Your task to perform on an android device: Empty the shopping cart on newegg.com. Image 0: 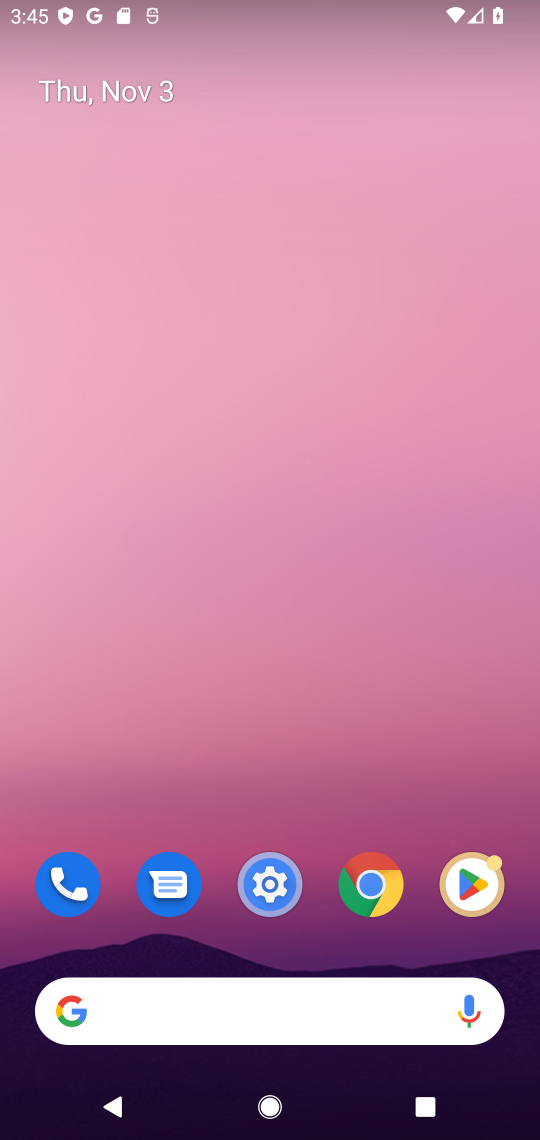
Step 0: press home button
Your task to perform on an android device: Empty the shopping cart on newegg.com. Image 1: 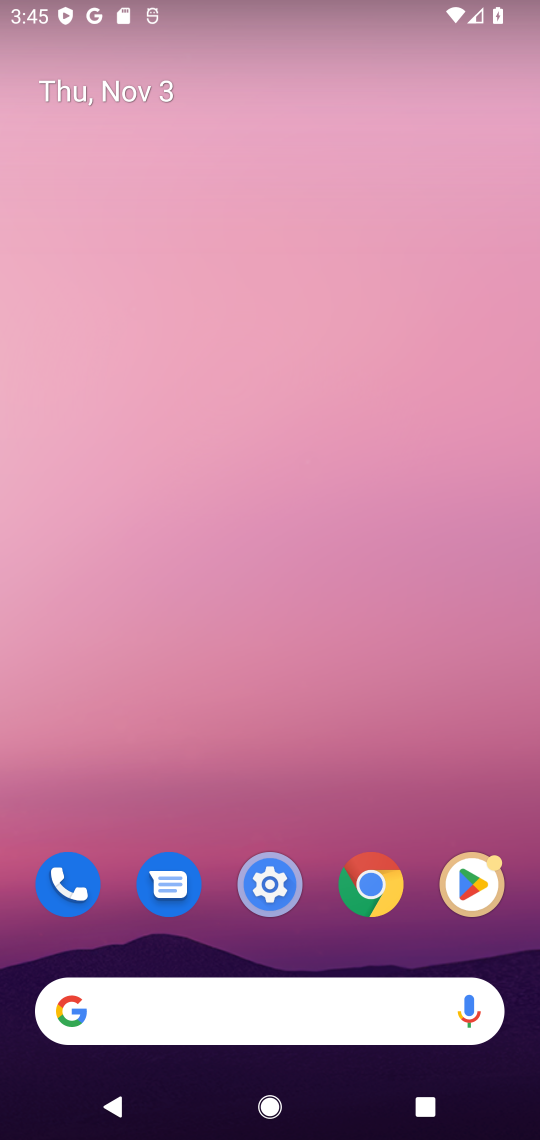
Step 1: click (96, 1006)
Your task to perform on an android device: Empty the shopping cart on newegg.com. Image 2: 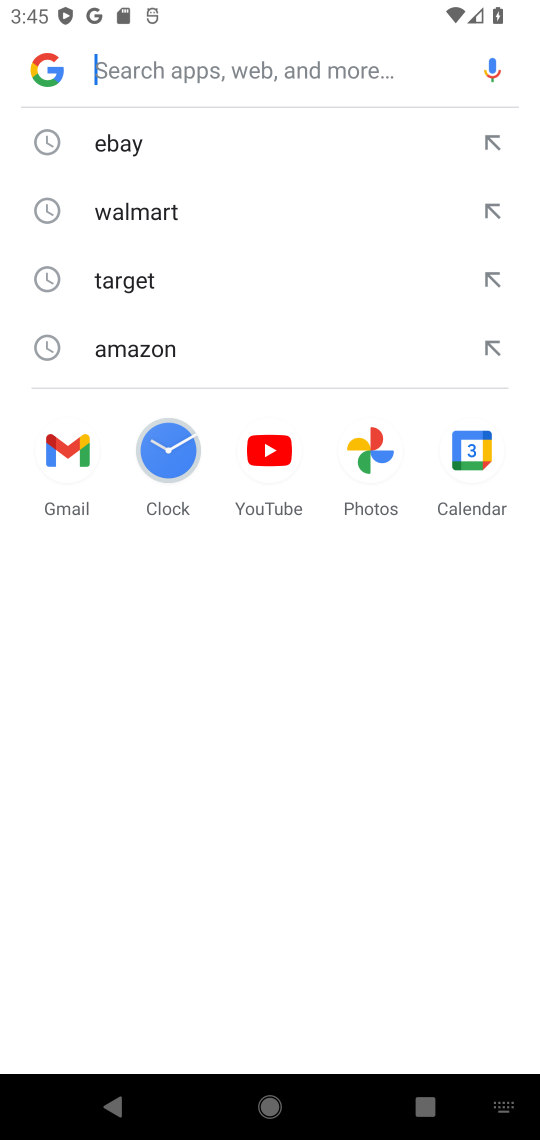
Step 2: type "newegg.com"
Your task to perform on an android device: Empty the shopping cart on newegg.com. Image 3: 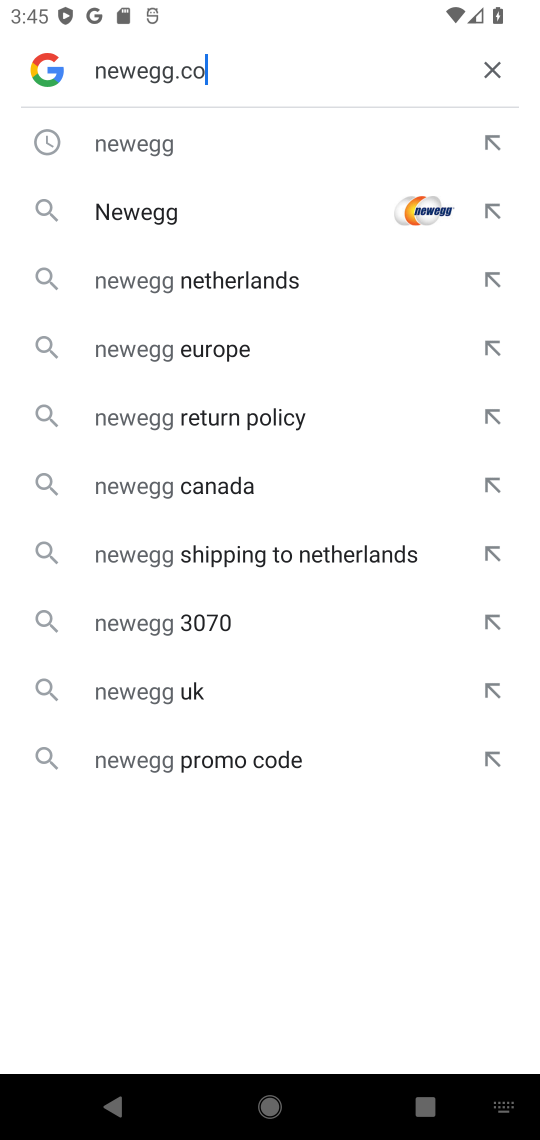
Step 3: press enter
Your task to perform on an android device: Empty the shopping cart on newegg.com. Image 4: 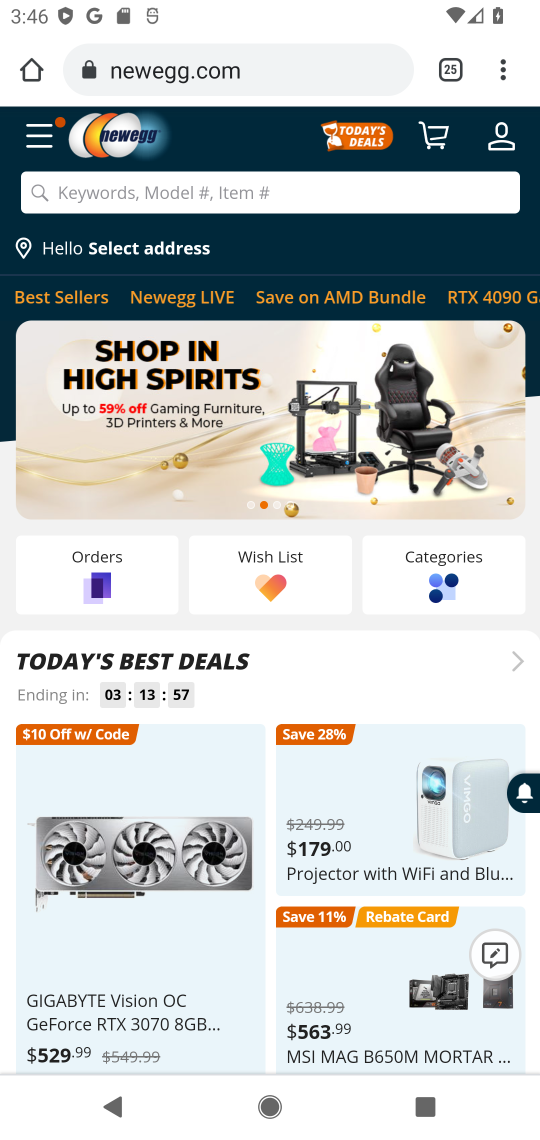
Step 4: click (436, 142)
Your task to perform on an android device: Empty the shopping cart on newegg.com. Image 5: 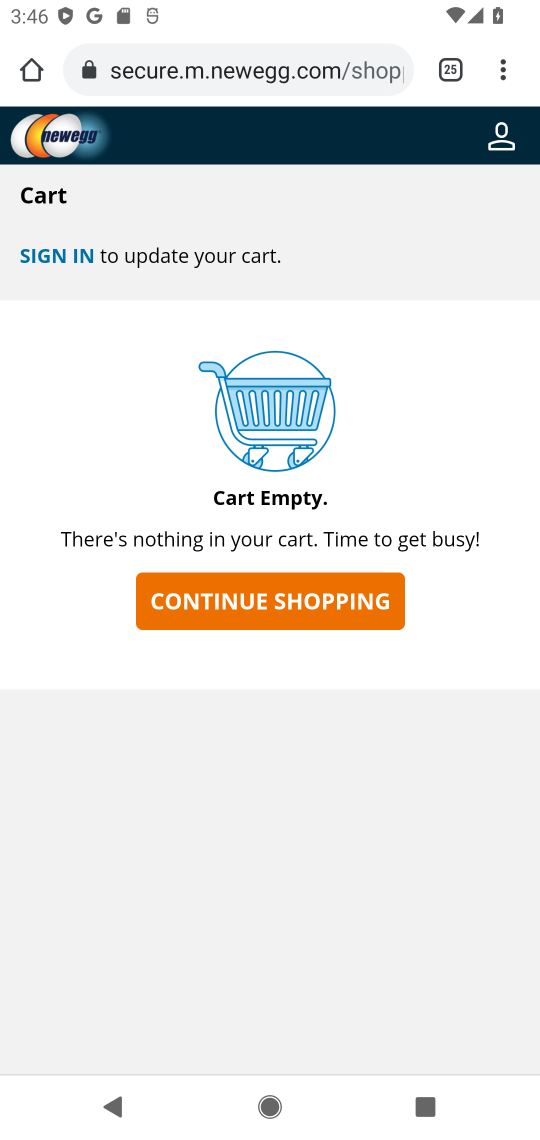
Step 5: task complete